Your task to perform on an android device: View the shopping cart on target. Add "beats solo 3" to the cart on target, then select checkout. Image 0: 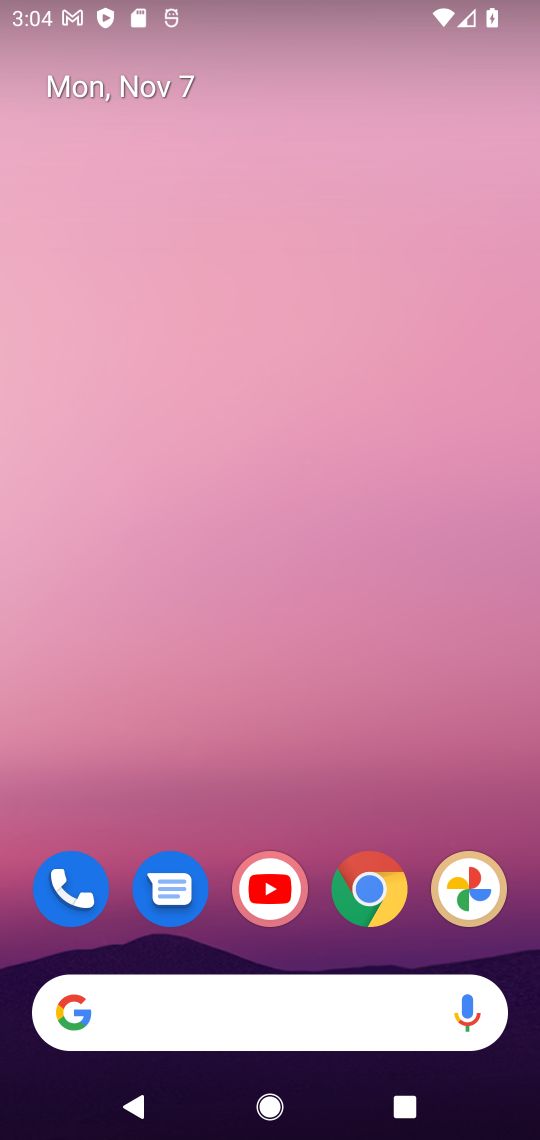
Step 0: click (377, 915)
Your task to perform on an android device: View the shopping cart on target. Add "beats solo 3" to the cart on target, then select checkout. Image 1: 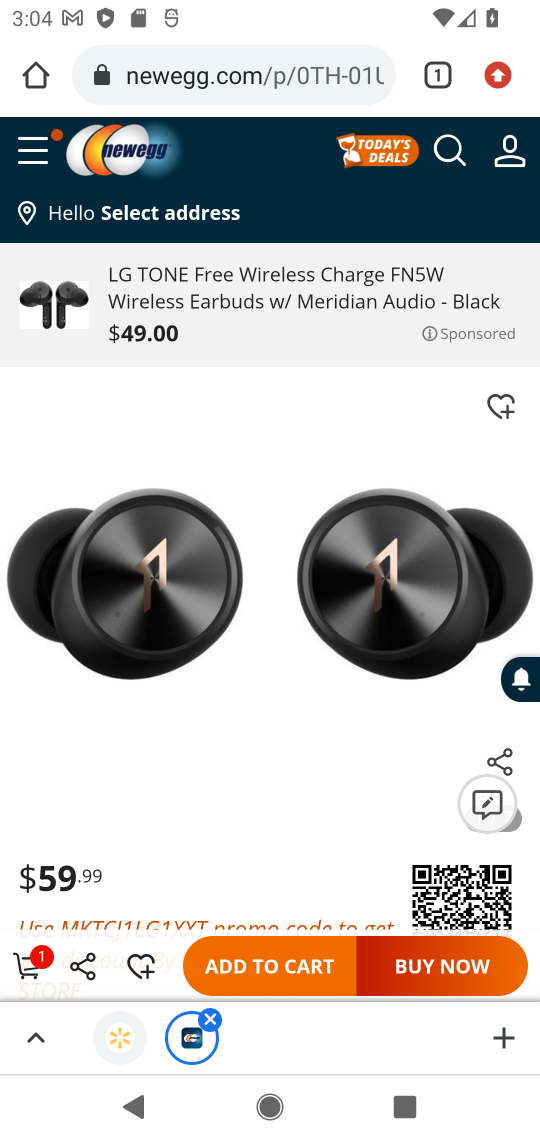
Step 1: click (241, 81)
Your task to perform on an android device: View the shopping cart on target. Add "beats solo 3" to the cart on target, then select checkout. Image 2: 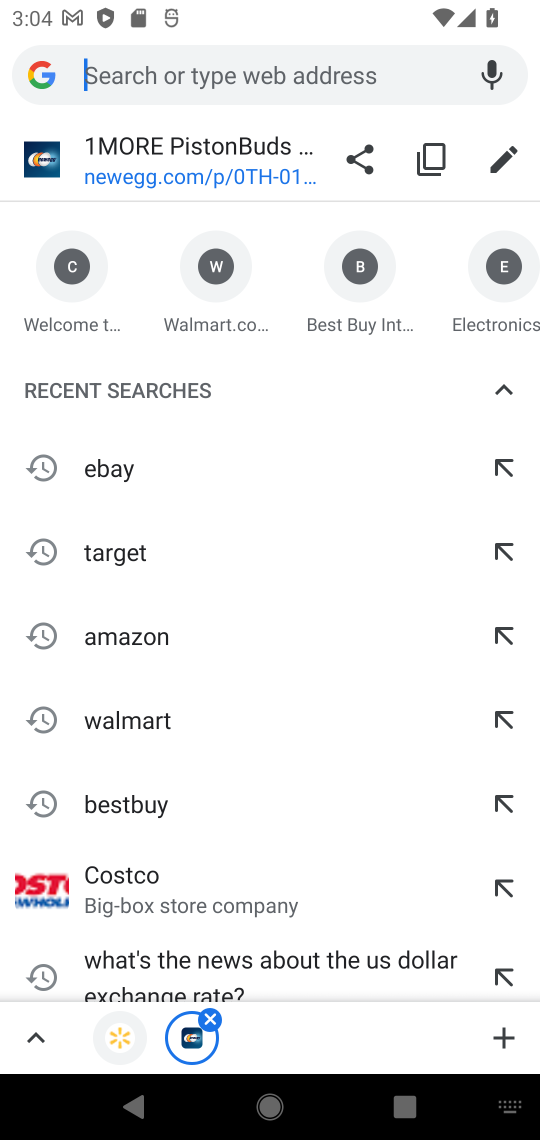
Step 2: type "tarrget.com"
Your task to perform on an android device: View the shopping cart on target. Add "beats solo 3" to the cart on target, then select checkout. Image 3: 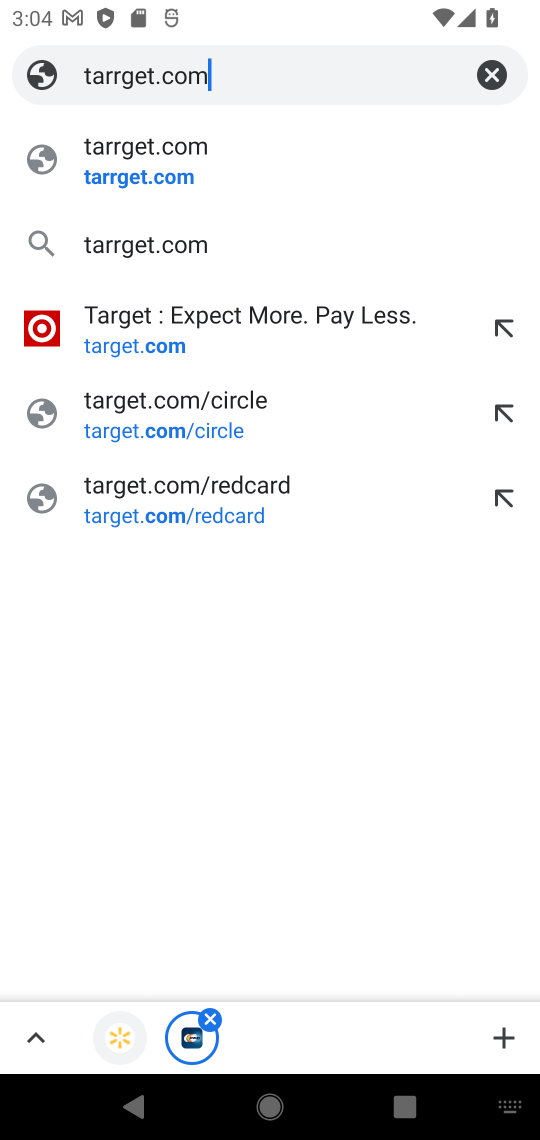
Step 3: click (149, 183)
Your task to perform on an android device: View the shopping cart on target. Add "beats solo 3" to the cart on target, then select checkout. Image 4: 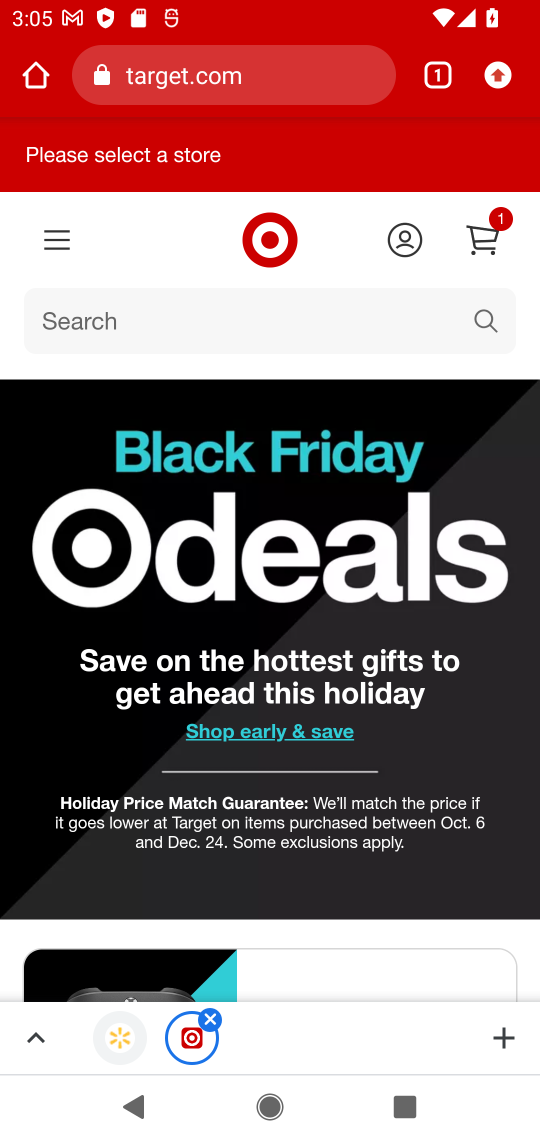
Step 4: click (85, 300)
Your task to perform on an android device: View the shopping cart on target. Add "beats solo 3" to the cart on target, then select checkout. Image 5: 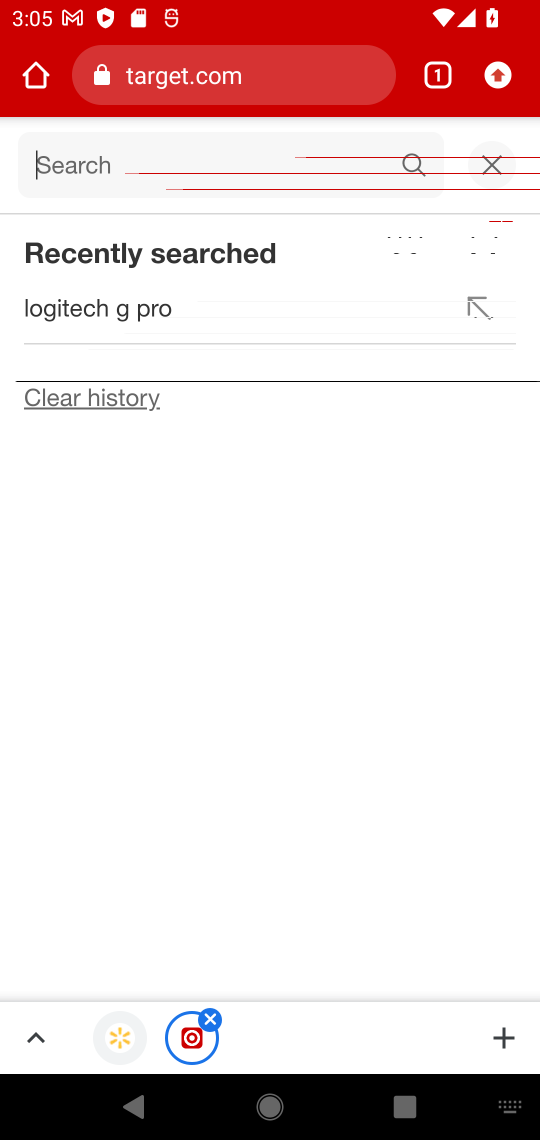
Step 5: click (495, 174)
Your task to perform on an android device: View the shopping cart on target. Add "beats solo 3" to the cart on target, then select checkout. Image 6: 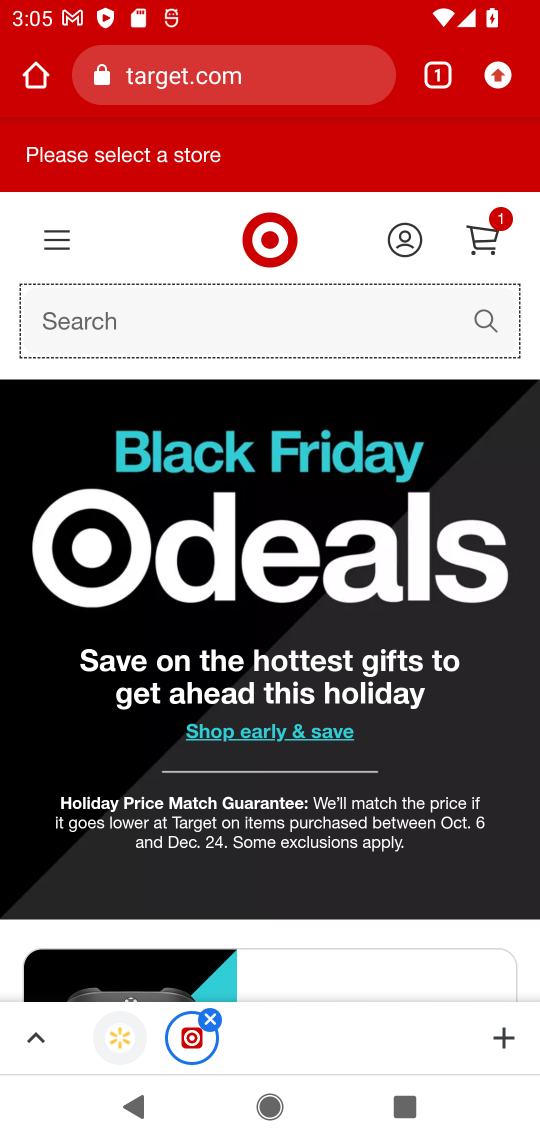
Step 6: click (493, 218)
Your task to perform on an android device: View the shopping cart on target. Add "beats solo 3" to the cart on target, then select checkout. Image 7: 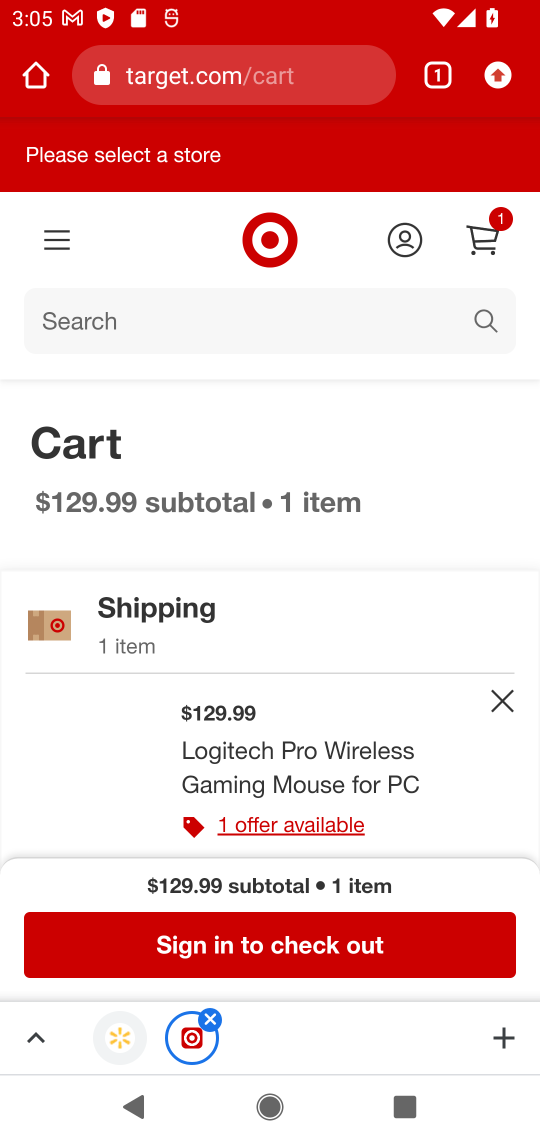
Step 7: click (260, 327)
Your task to perform on an android device: View the shopping cart on target. Add "beats solo 3" to the cart on target, then select checkout. Image 8: 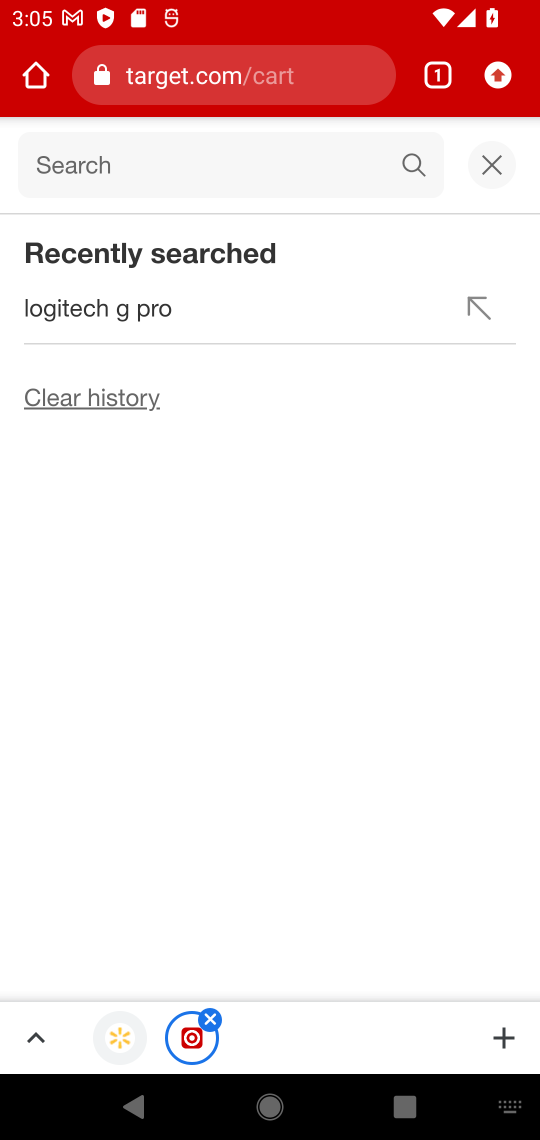
Step 8: type "beats solo 3"
Your task to perform on an android device: View the shopping cart on target. Add "beats solo 3" to the cart on target, then select checkout. Image 9: 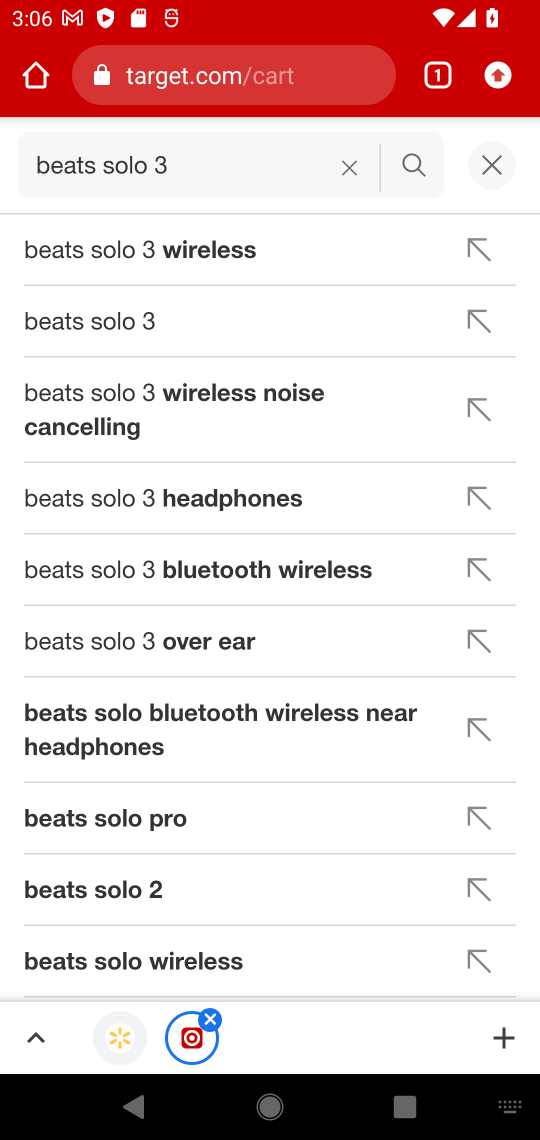
Step 9: press enter
Your task to perform on an android device: View the shopping cart on target. Add "beats solo 3" to the cart on target, then select checkout. Image 10: 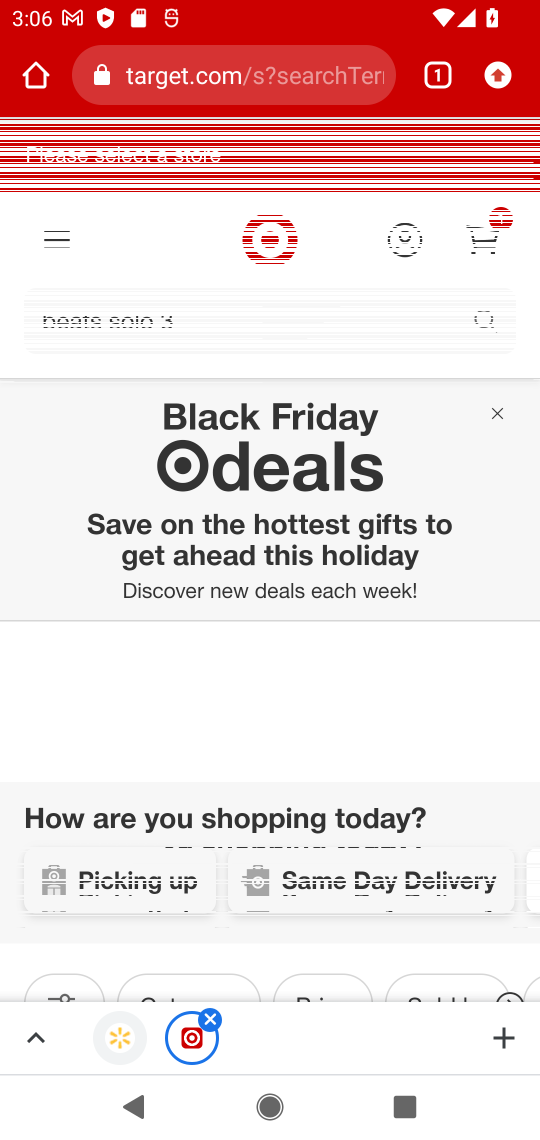
Step 10: drag from (384, 882) to (337, 435)
Your task to perform on an android device: View the shopping cart on target. Add "beats solo 3" to the cart on target, then select checkout. Image 11: 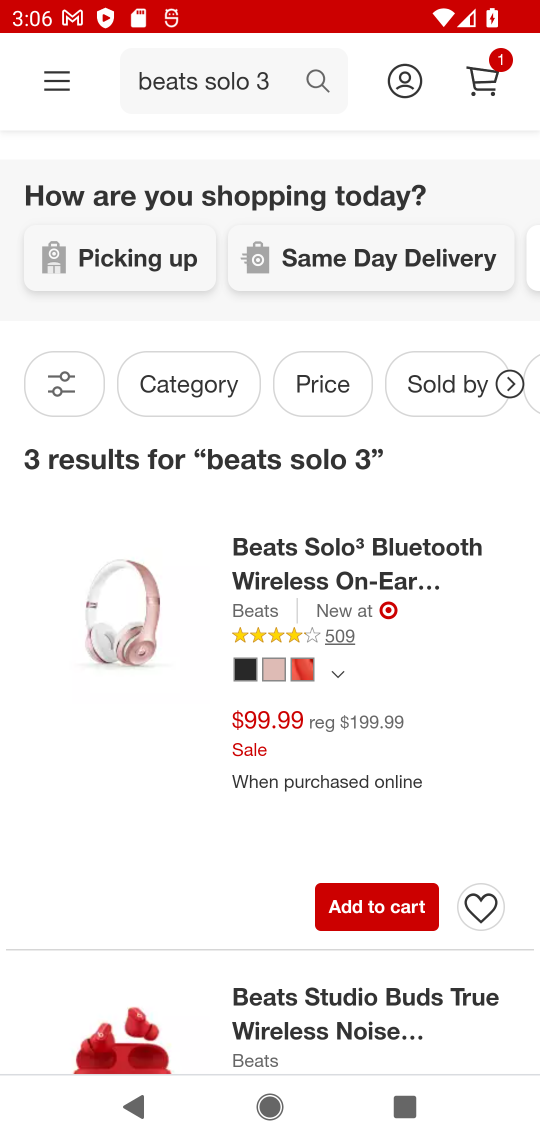
Step 11: click (119, 632)
Your task to perform on an android device: View the shopping cart on target. Add "beats solo 3" to the cart on target, then select checkout. Image 12: 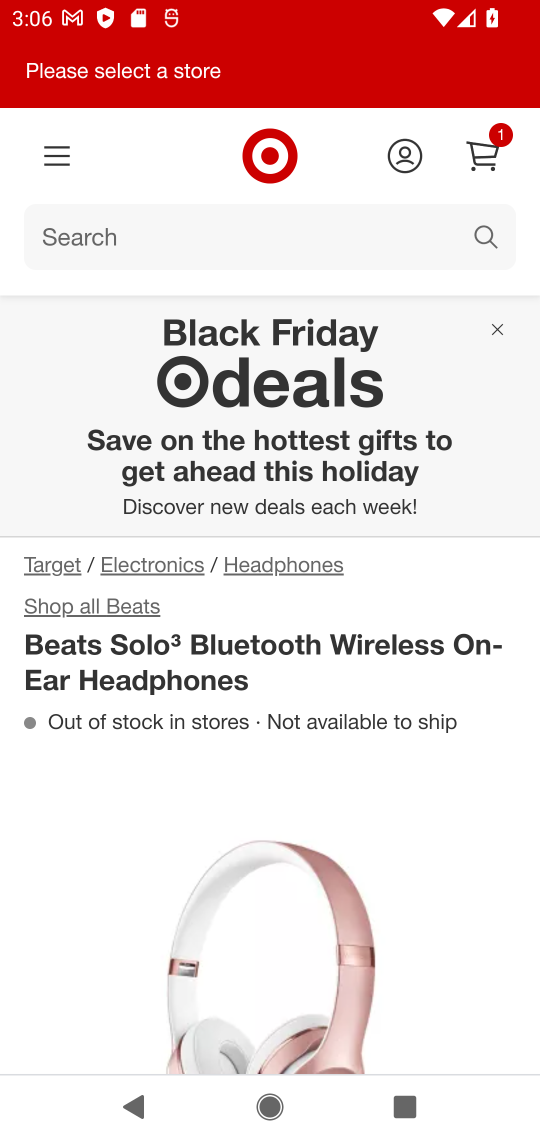
Step 12: drag from (407, 803) to (286, 223)
Your task to perform on an android device: View the shopping cart on target. Add "beats solo 3" to the cart on target, then select checkout. Image 13: 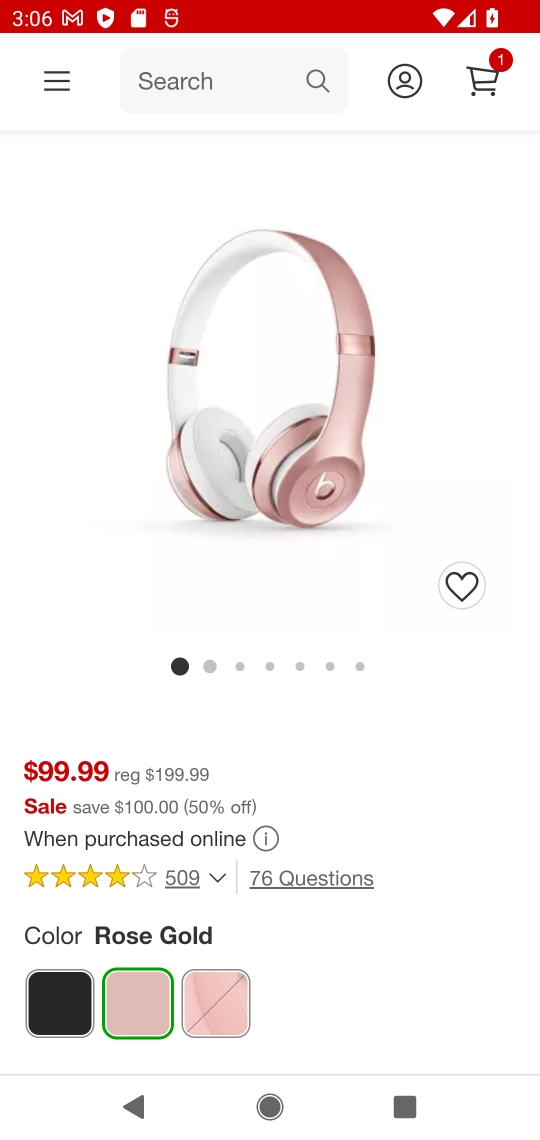
Step 13: drag from (434, 942) to (392, 450)
Your task to perform on an android device: View the shopping cart on target. Add "beats solo 3" to the cart on target, then select checkout. Image 14: 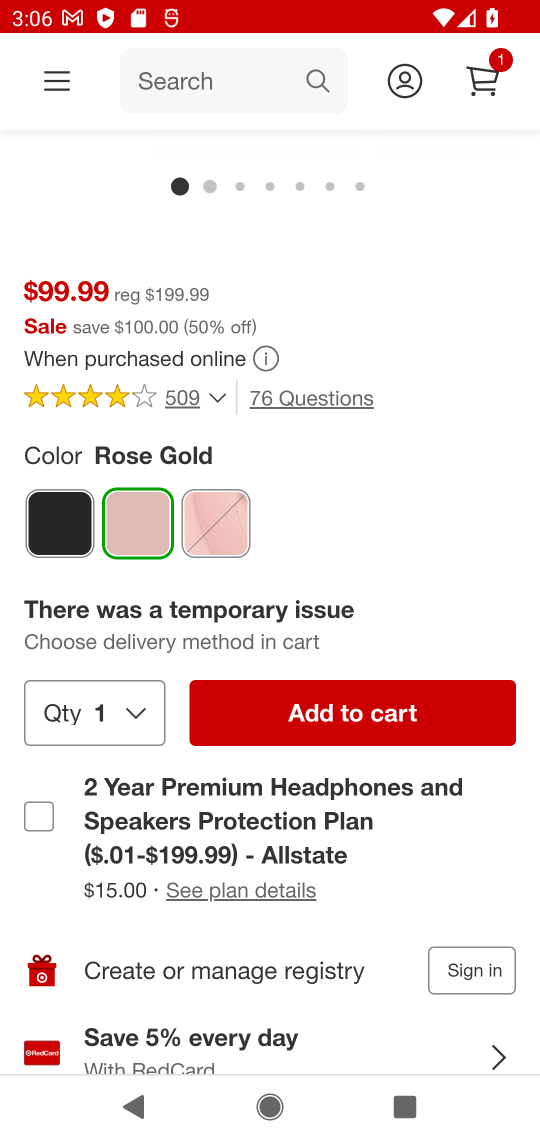
Step 14: click (341, 711)
Your task to perform on an android device: View the shopping cart on target. Add "beats solo 3" to the cart on target, then select checkout. Image 15: 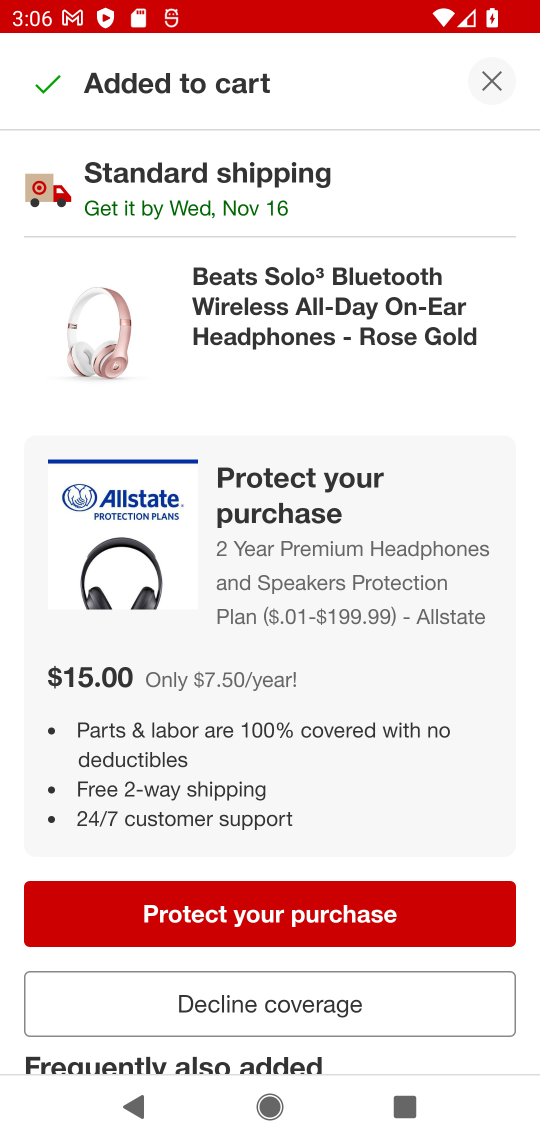
Step 15: click (498, 52)
Your task to perform on an android device: View the shopping cart on target. Add "beats solo 3" to the cart on target, then select checkout. Image 16: 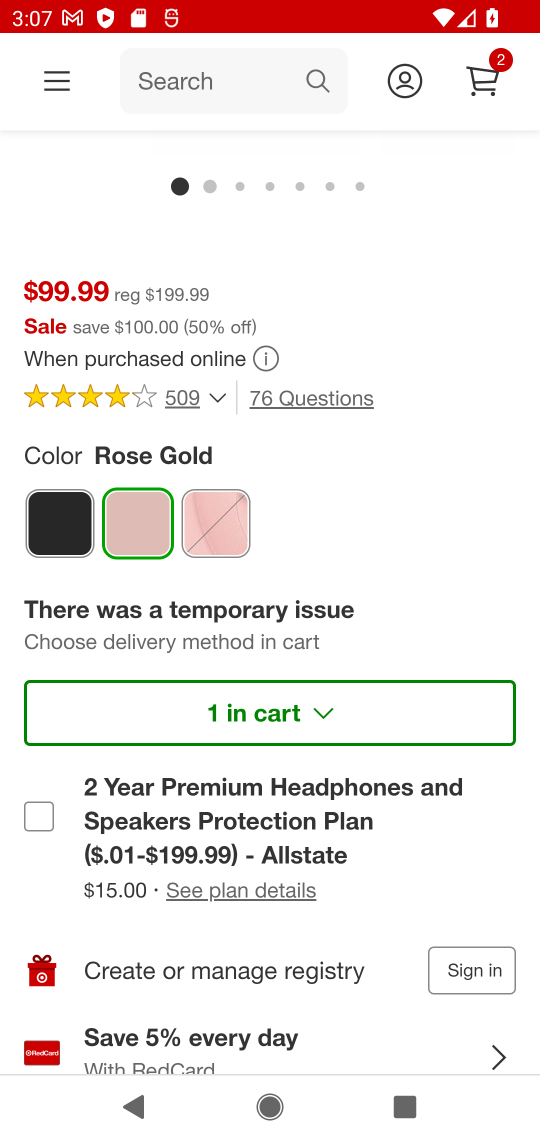
Step 16: click (492, 69)
Your task to perform on an android device: View the shopping cart on target. Add "beats solo 3" to the cart on target, then select checkout. Image 17: 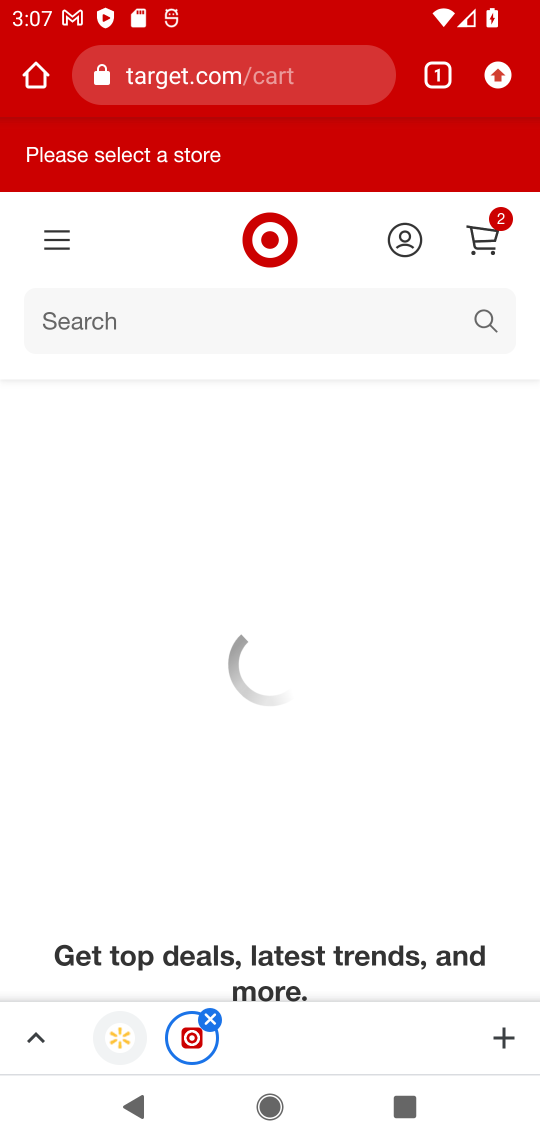
Step 17: drag from (452, 955) to (467, 468)
Your task to perform on an android device: View the shopping cart on target. Add "beats solo 3" to the cart on target, then select checkout. Image 18: 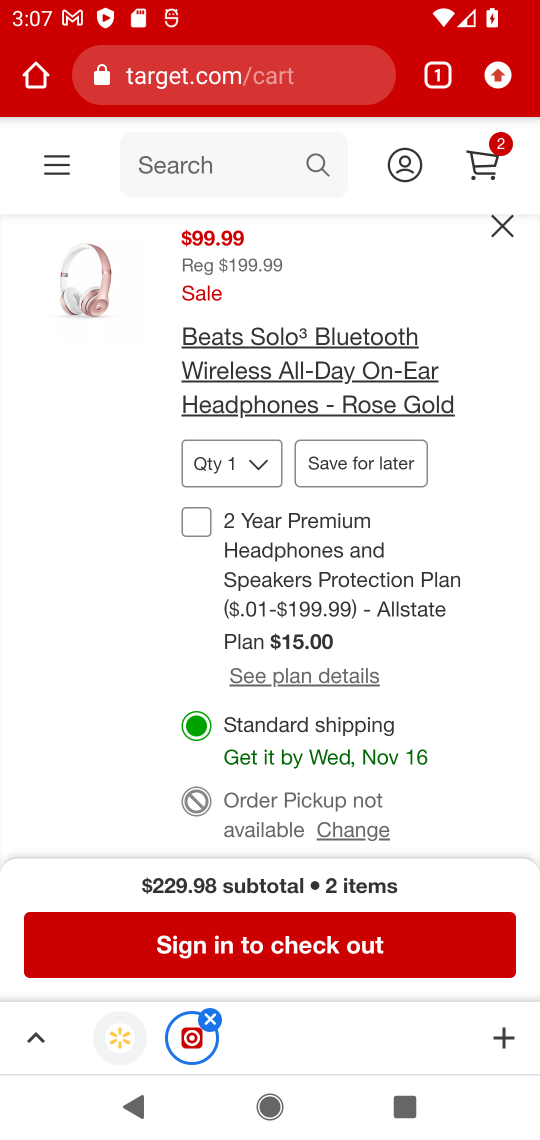
Step 18: click (386, 277)
Your task to perform on an android device: View the shopping cart on target. Add "beats solo 3" to the cart on target, then select checkout. Image 19: 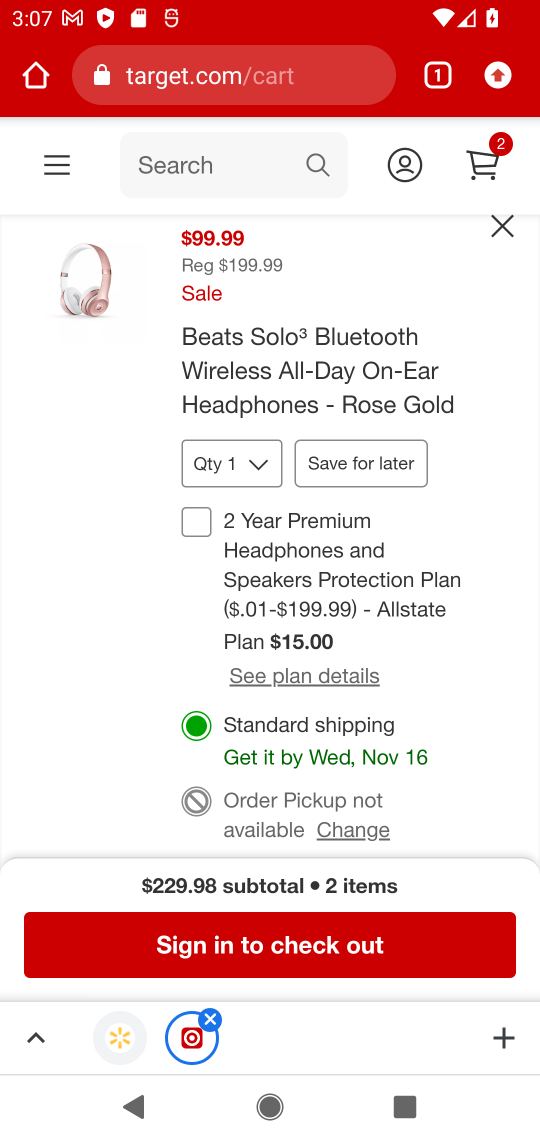
Step 19: drag from (401, 831) to (395, 336)
Your task to perform on an android device: View the shopping cart on target. Add "beats solo 3" to the cart on target, then select checkout. Image 20: 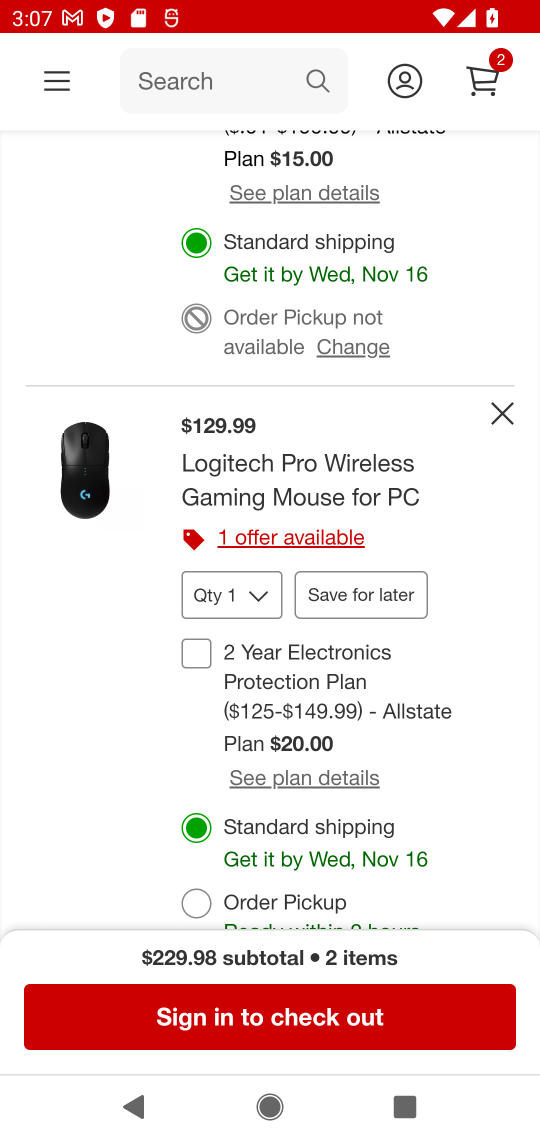
Step 20: click (401, 1009)
Your task to perform on an android device: View the shopping cart on target. Add "beats solo 3" to the cart on target, then select checkout. Image 21: 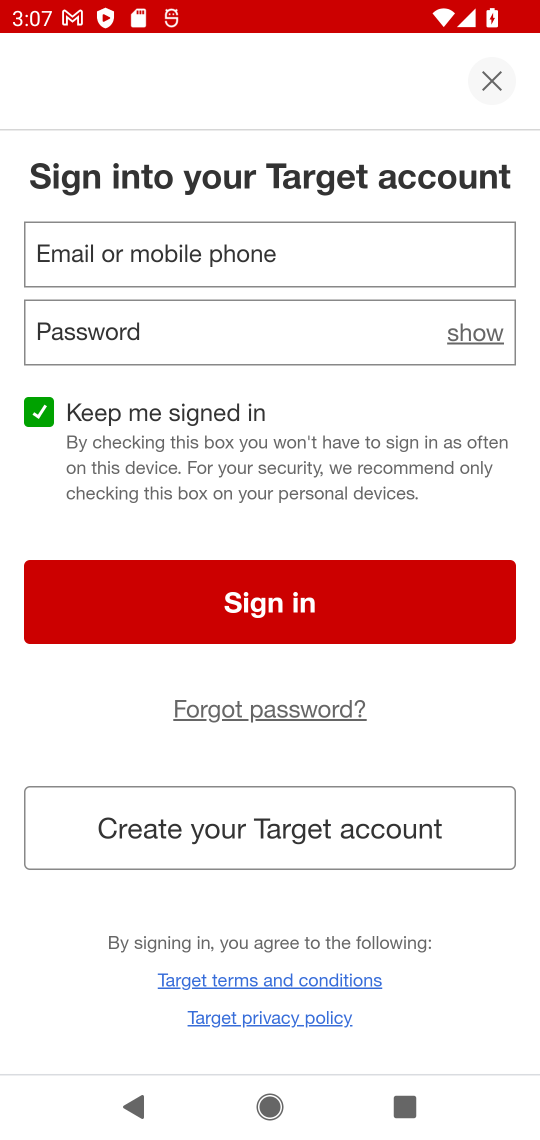
Step 21: task complete